Your task to perform on an android device: Open the phone app and click the voicemail tab. Image 0: 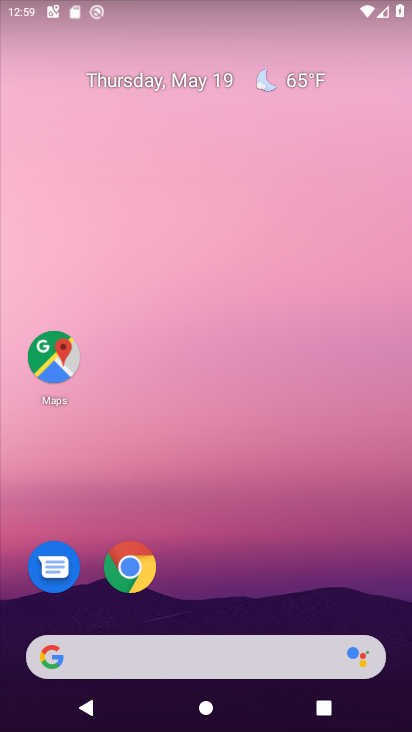
Step 0: drag from (267, 601) to (323, 79)
Your task to perform on an android device: Open the phone app and click the voicemail tab. Image 1: 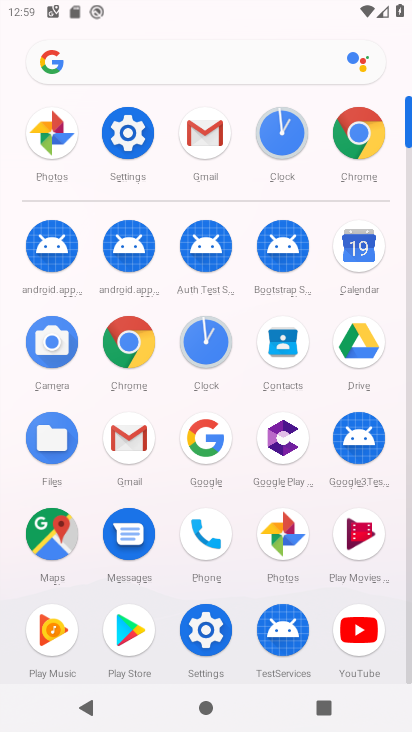
Step 1: click (212, 529)
Your task to perform on an android device: Open the phone app and click the voicemail tab. Image 2: 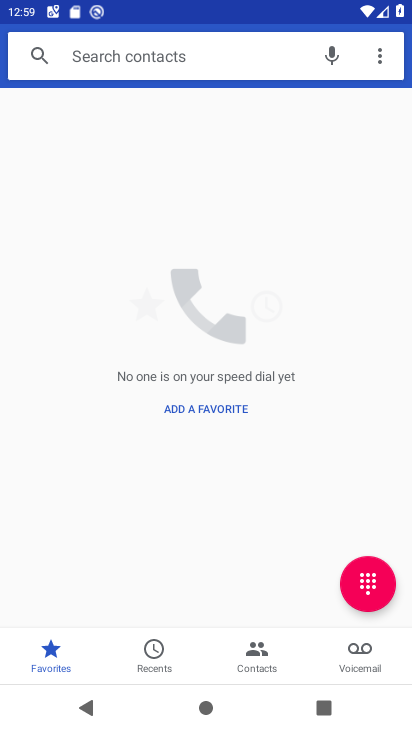
Step 2: click (370, 656)
Your task to perform on an android device: Open the phone app and click the voicemail tab. Image 3: 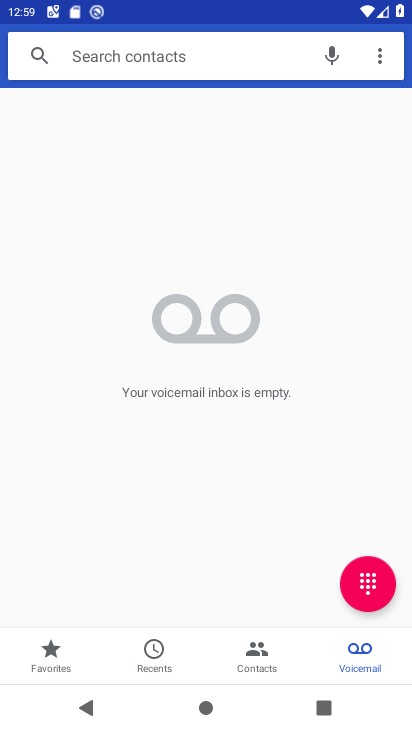
Step 3: task complete